Your task to perform on an android device: visit the assistant section in the google photos Image 0: 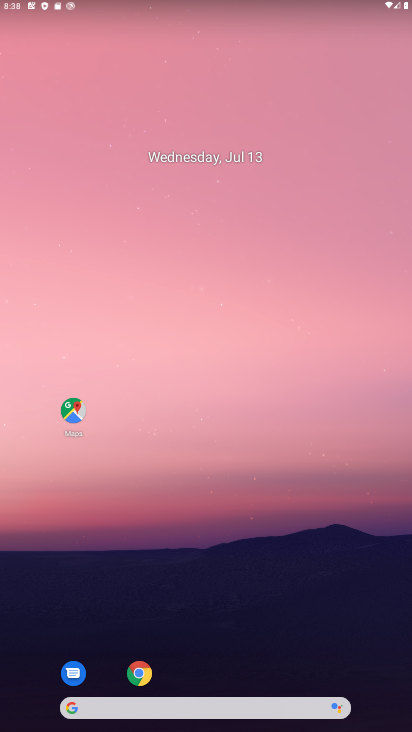
Step 0: drag from (238, 511) to (236, 69)
Your task to perform on an android device: visit the assistant section in the google photos Image 1: 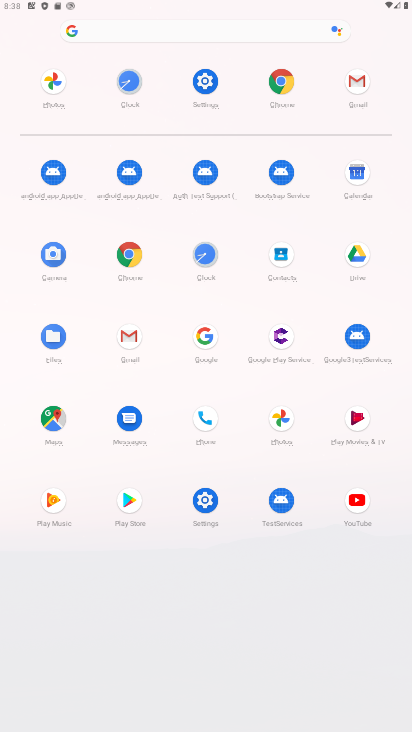
Step 1: click (276, 419)
Your task to perform on an android device: visit the assistant section in the google photos Image 2: 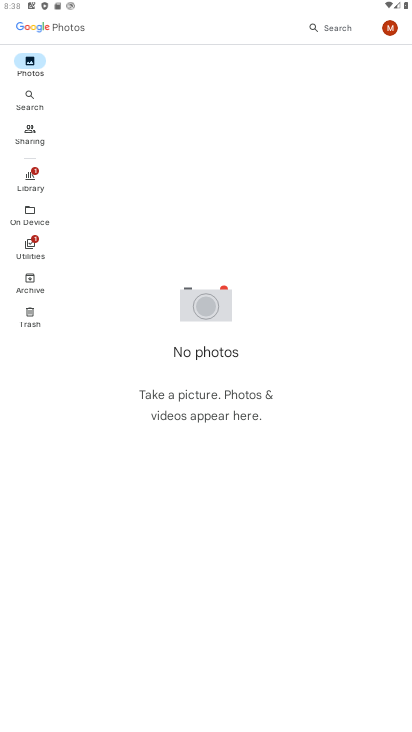
Step 2: click (25, 113)
Your task to perform on an android device: visit the assistant section in the google photos Image 3: 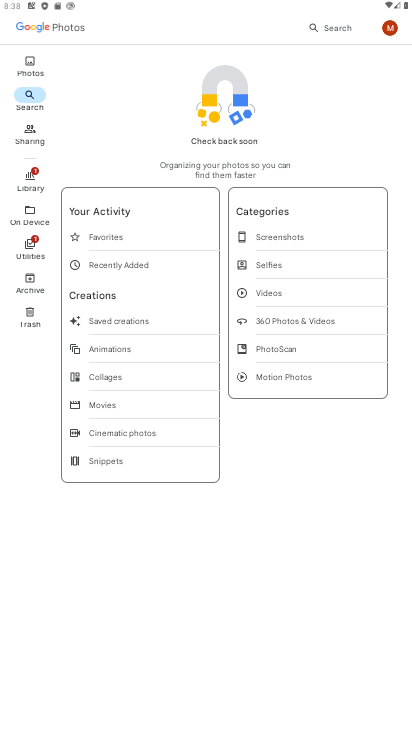
Step 3: click (29, 161)
Your task to perform on an android device: visit the assistant section in the google photos Image 4: 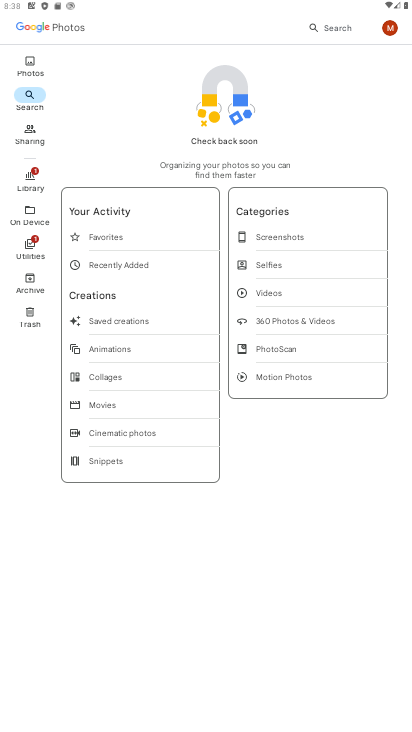
Step 4: click (37, 278)
Your task to perform on an android device: visit the assistant section in the google photos Image 5: 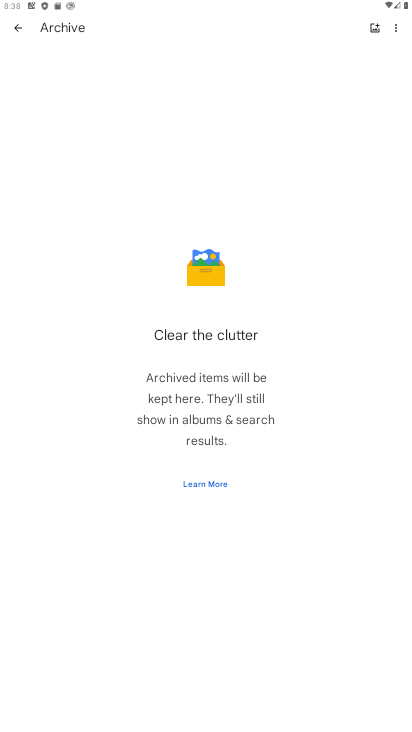
Step 5: click (34, 276)
Your task to perform on an android device: visit the assistant section in the google photos Image 6: 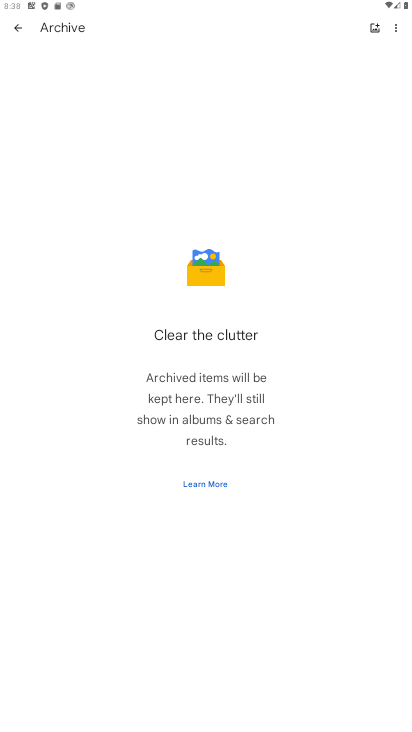
Step 6: click (23, 25)
Your task to perform on an android device: visit the assistant section in the google photos Image 7: 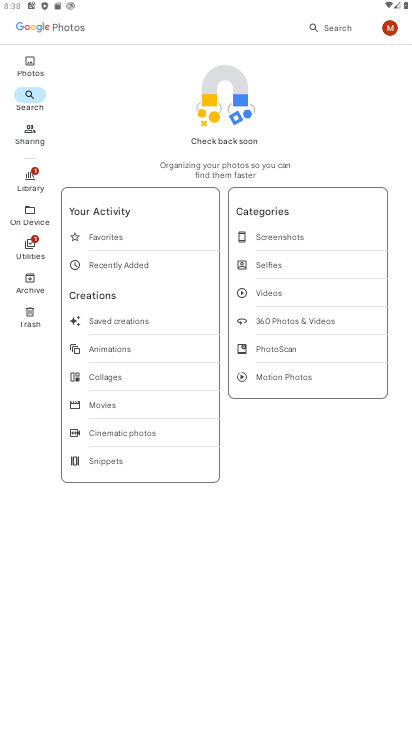
Step 7: click (33, 66)
Your task to perform on an android device: visit the assistant section in the google photos Image 8: 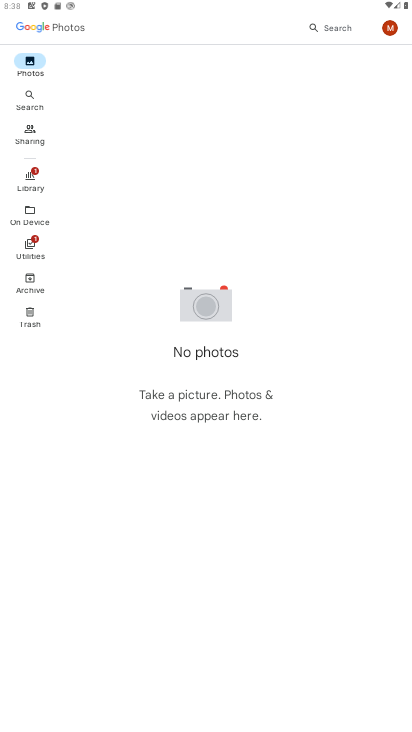
Step 8: click (26, 178)
Your task to perform on an android device: visit the assistant section in the google photos Image 9: 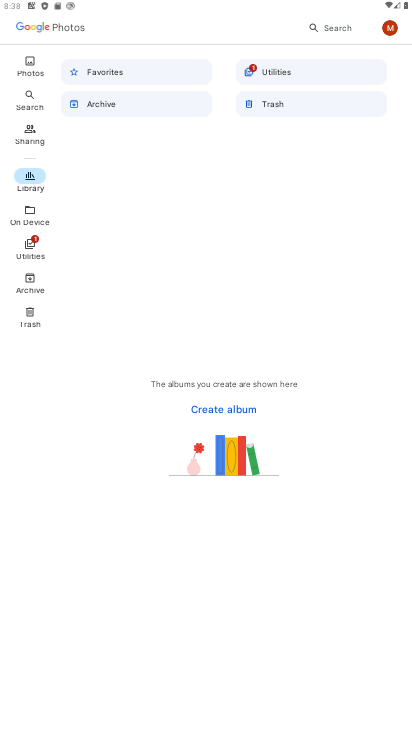
Step 9: task complete